Your task to perform on an android device: turn on javascript in the chrome app Image 0: 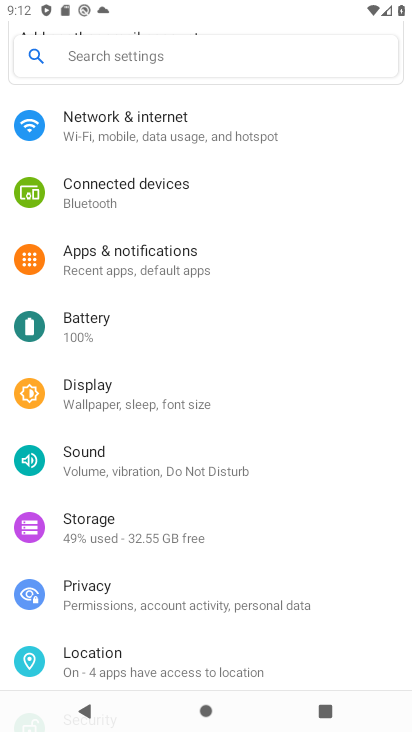
Step 0: press home button
Your task to perform on an android device: turn on javascript in the chrome app Image 1: 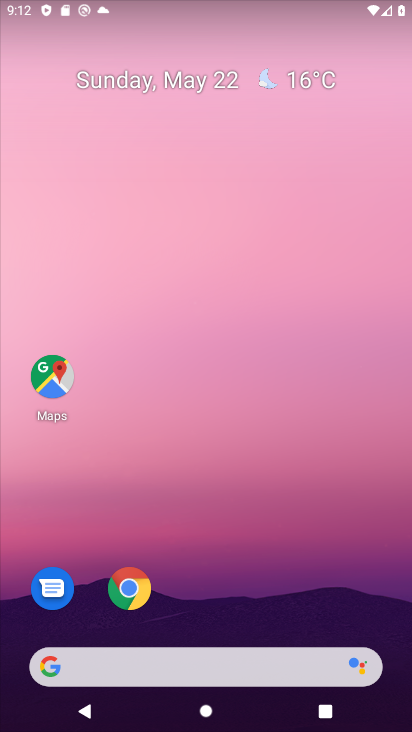
Step 1: click (132, 609)
Your task to perform on an android device: turn on javascript in the chrome app Image 2: 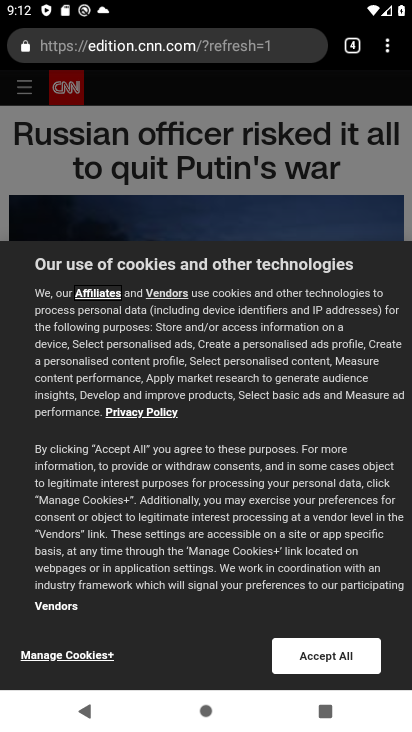
Step 2: click (384, 42)
Your task to perform on an android device: turn on javascript in the chrome app Image 3: 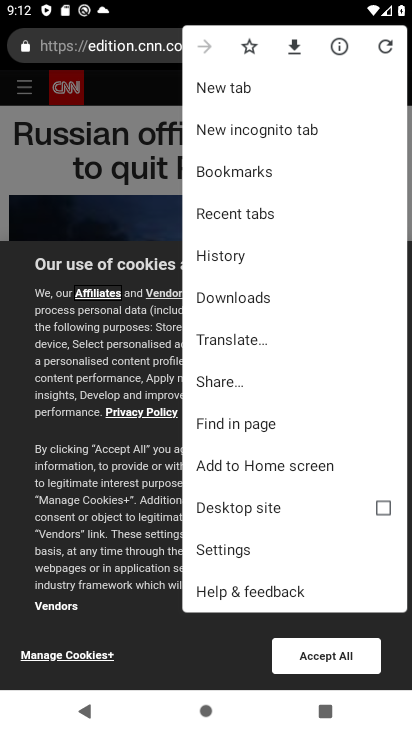
Step 3: click (225, 548)
Your task to perform on an android device: turn on javascript in the chrome app Image 4: 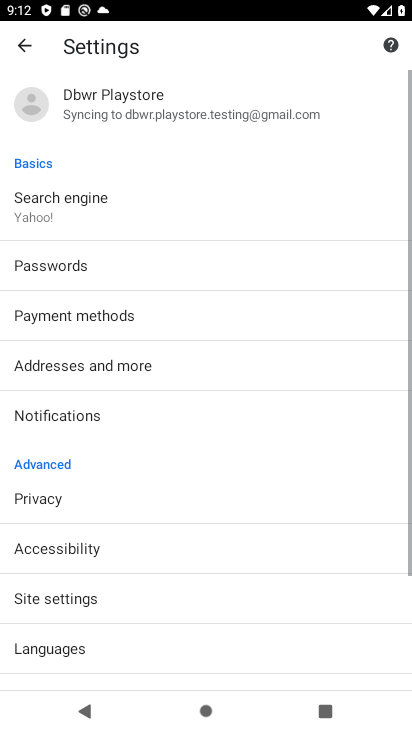
Step 4: click (49, 590)
Your task to perform on an android device: turn on javascript in the chrome app Image 5: 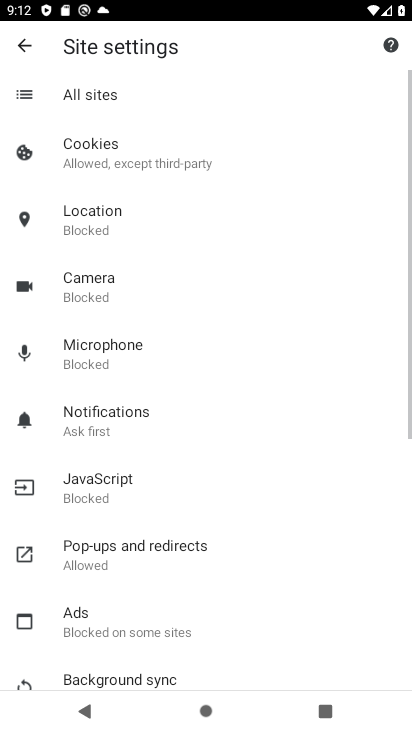
Step 5: click (118, 503)
Your task to perform on an android device: turn on javascript in the chrome app Image 6: 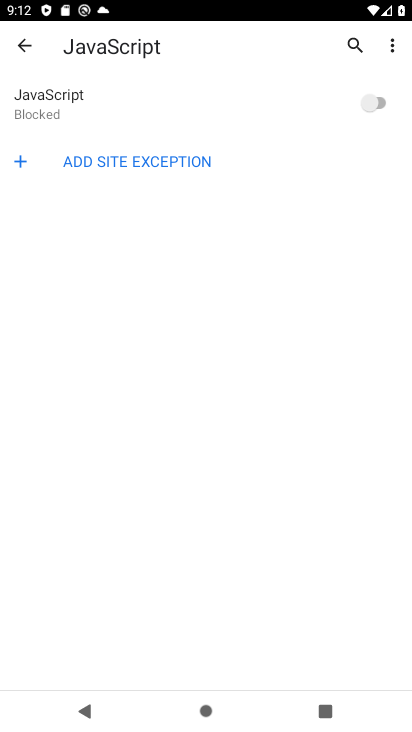
Step 6: click (386, 91)
Your task to perform on an android device: turn on javascript in the chrome app Image 7: 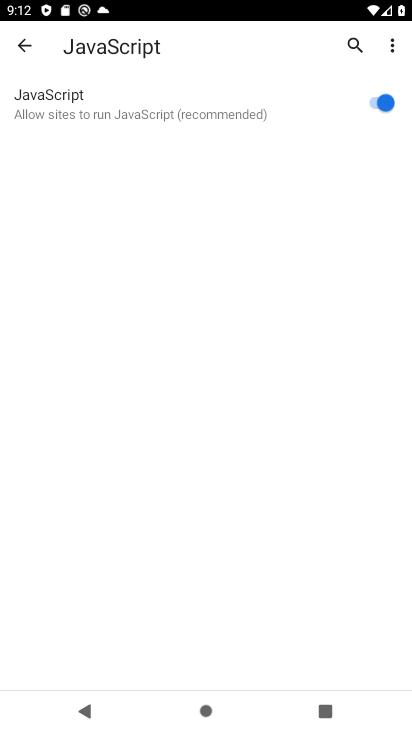
Step 7: task complete